Your task to perform on an android device: turn off sleep mode Image 0: 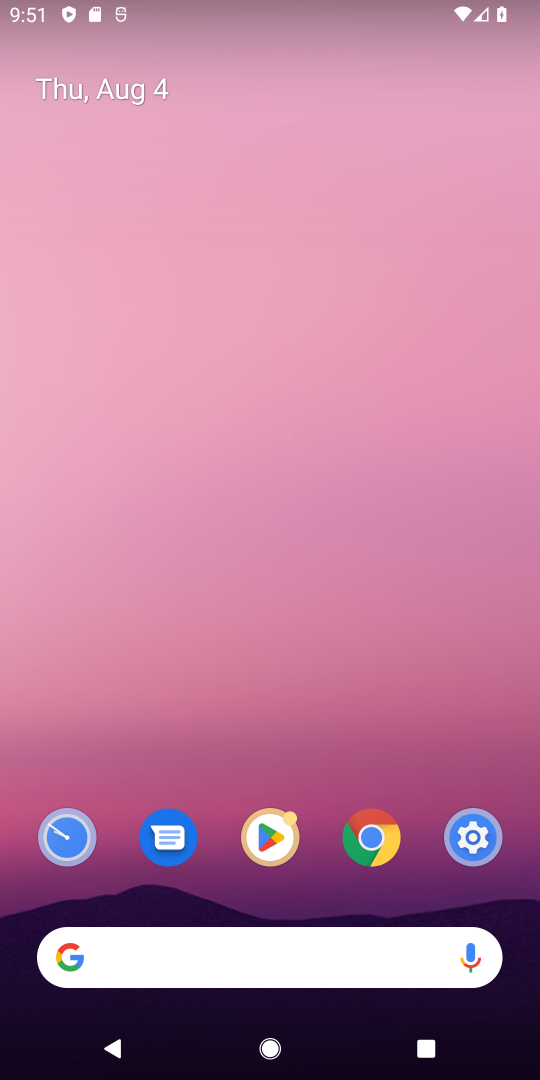
Step 0: drag from (316, 607) to (288, 92)
Your task to perform on an android device: turn off sleep mode Image 1: 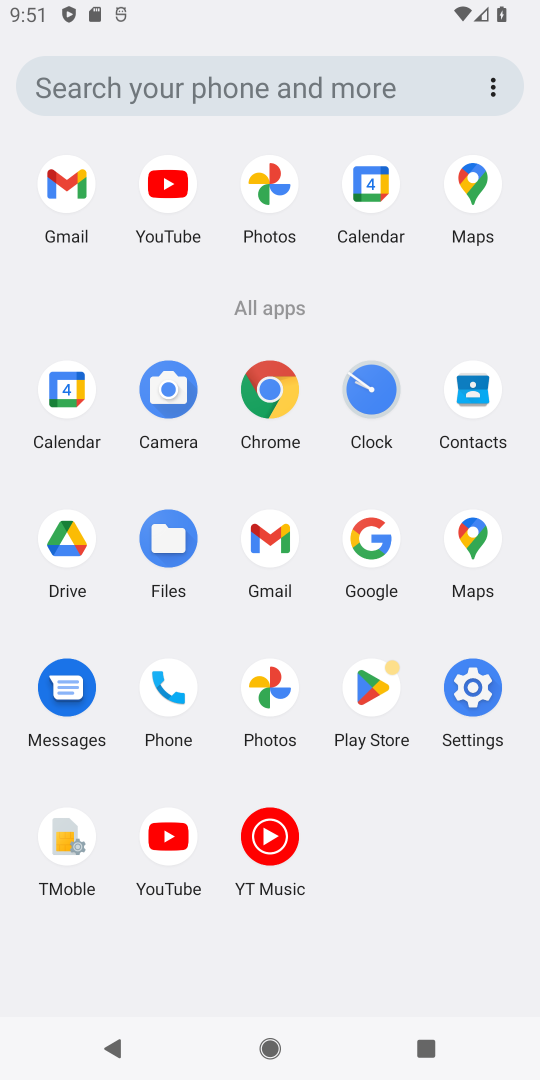
Step 1: click (483, 682)
Your task to perform on an android device: turn off sleep mode Image 2: 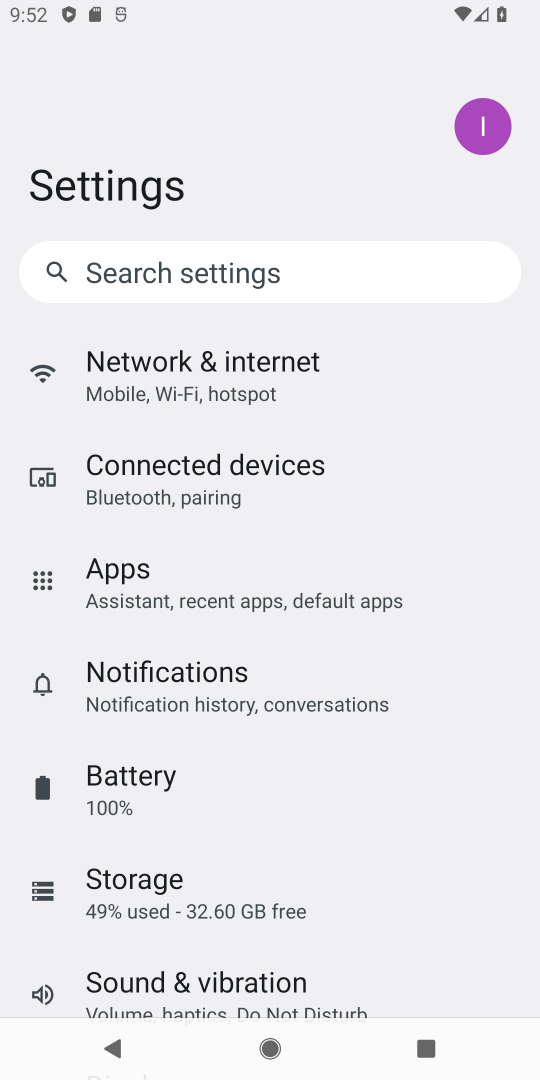
Step 2: drag from (230, 923) to (242, 469)
Your task to perform on an android device: turn off sleep mode Image 3: 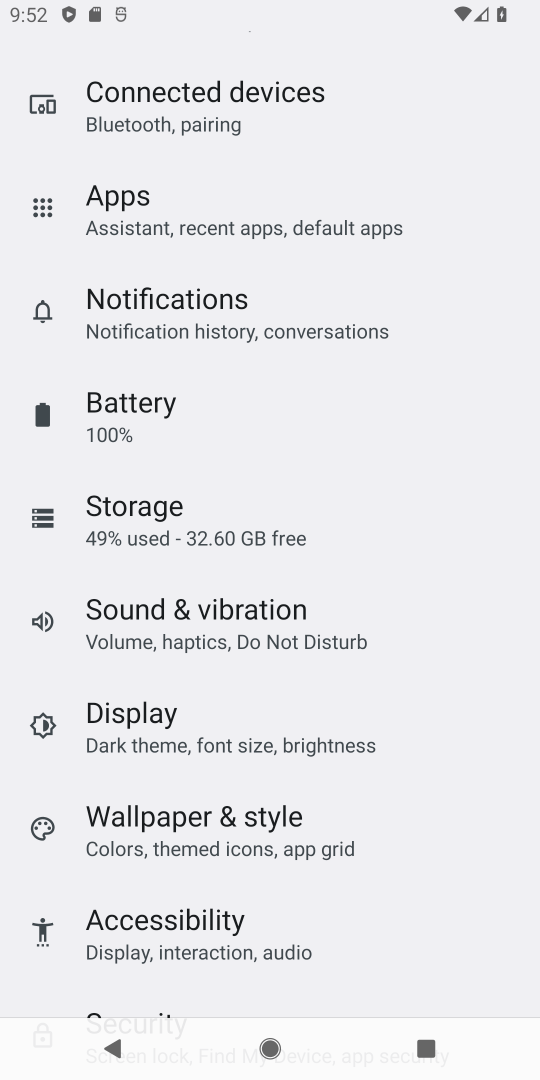
Step 3: click (193, 723)
Your task to perform on an android device: turn off sleep mode Image 4: 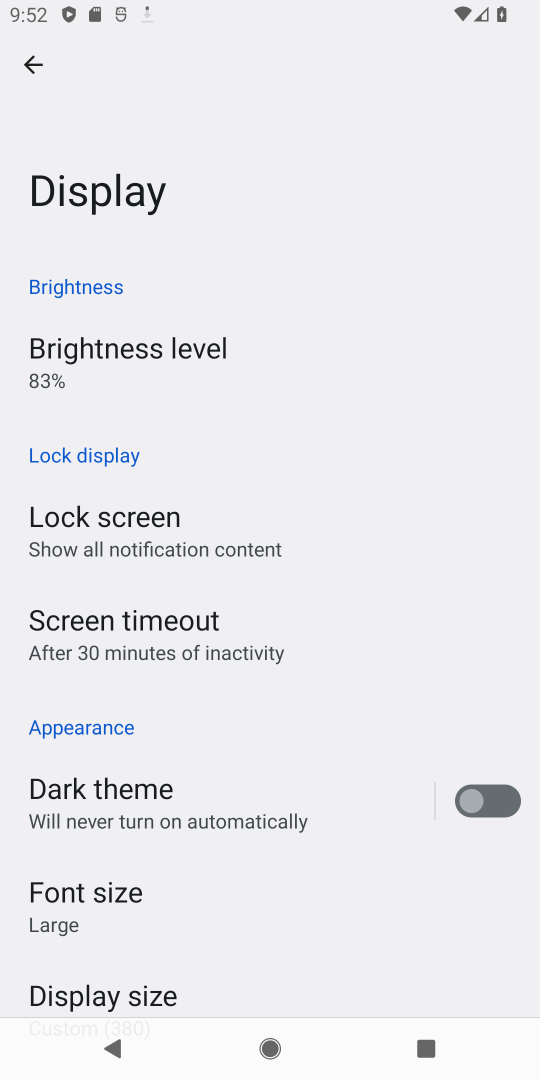
Step 4: task complete